Your task to perform on an android device: See recent photos Image 0: 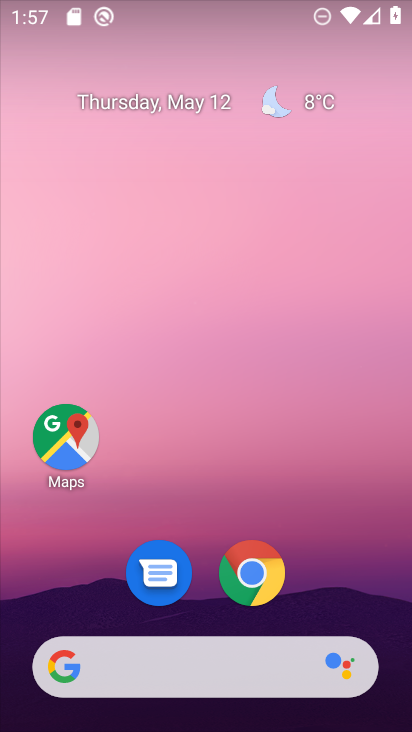
Step 0: drag from (381, 636) to (165, 159)
Your task to perform on an android device: See recent photos Image 1: 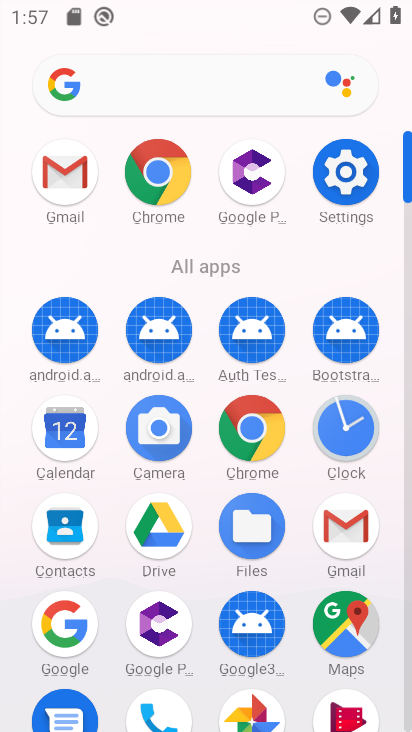
Step 1: drag from (274, 700) to (271, 162)
Your task to perform on an android device: See recent photos Image 2: 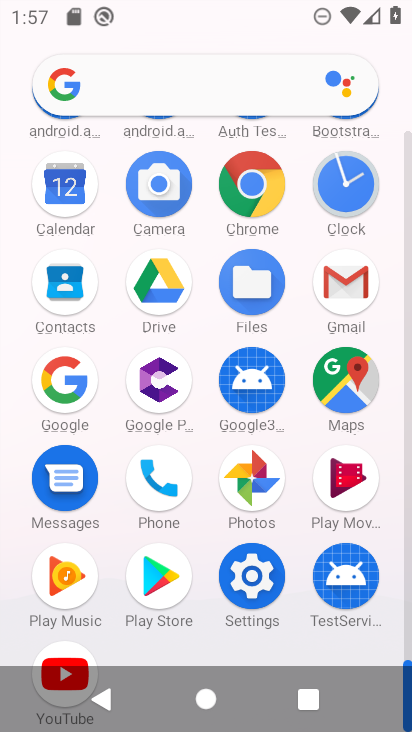
Step 2: click (251, 477)
Your task to perform on an android device: See recent photos Image 3: 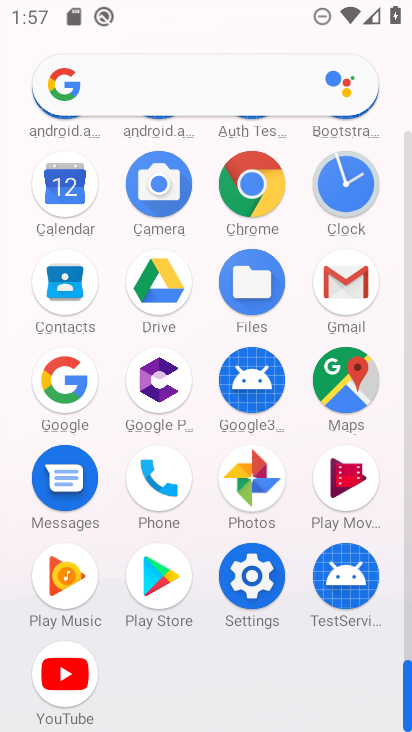
Step 3: click (251, 477)
Your task to perform on an android device: See recent photos Image 4: 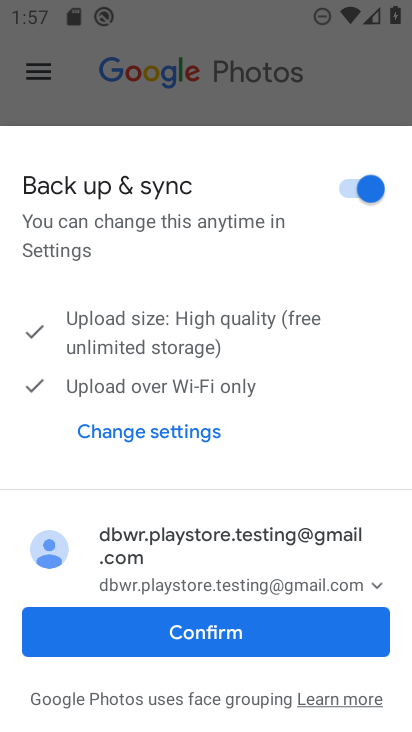
Step 4: click (201, 638)
Your task to perform on an android device: See recent photos Image 5: 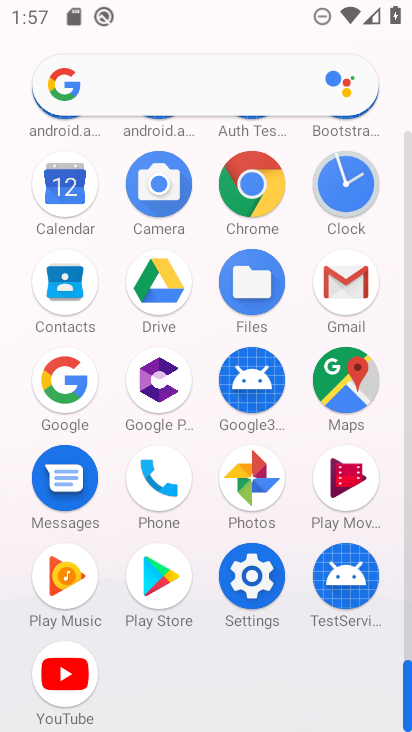
Step 5: click (248, 465)
Your task to perform on an android device: See recent photos Image 6: 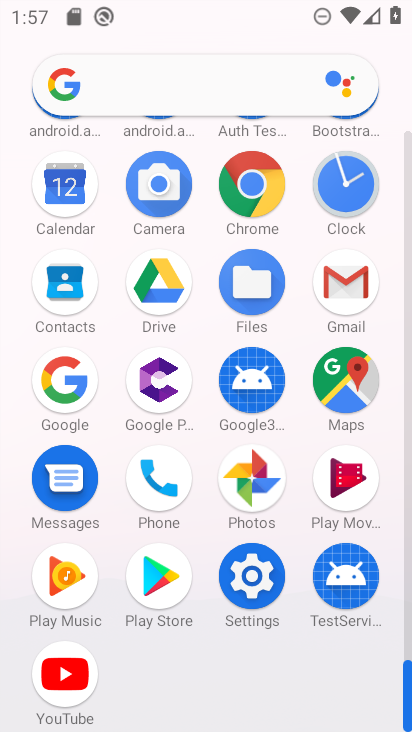
Step 6: click (248, 465)
Your task to perform on an android device: See recent photos Image 7: 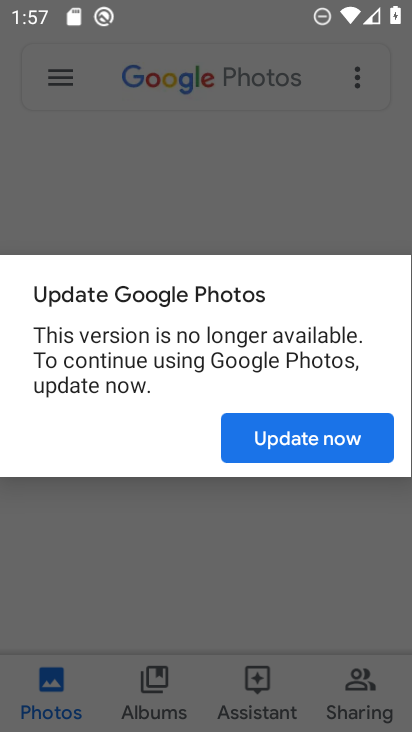
Step 7: click (313, 444)
Your task to perform on an android device: See recent photos Image 8: 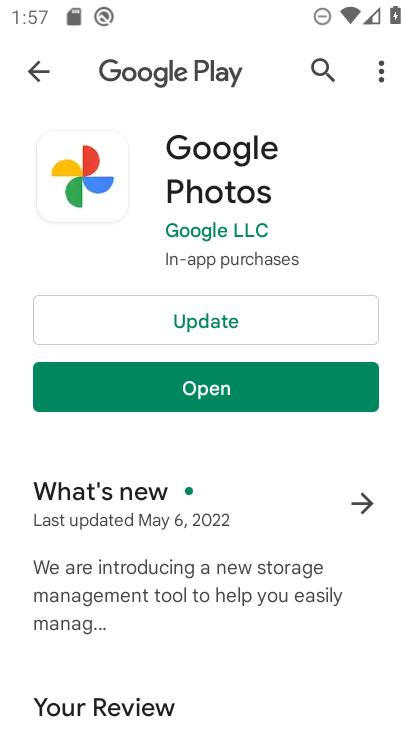
Step 8: click (208, 381)
Your task to perform on an android device: See recent photos Image 9: 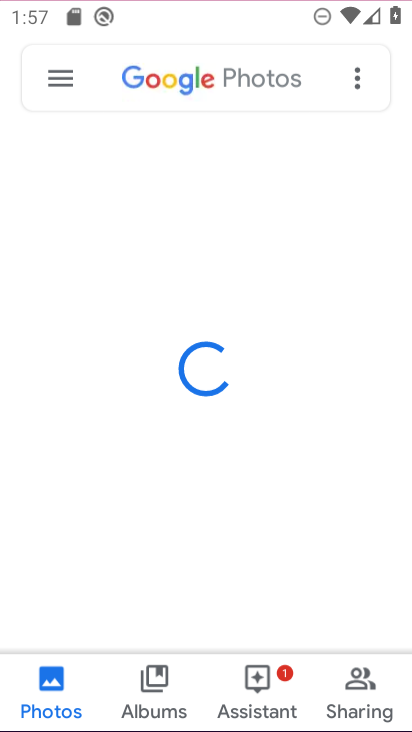
Step 9: click (207, 316)
Your task to perform on an android device: See recent photos Image 10: 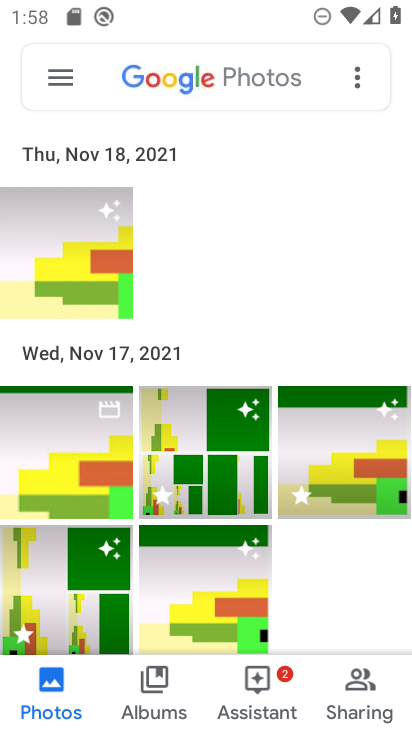
Step 10: task complete